Your task to perform on an android device: read, delete, or share a saved page in the chrome app Image 0: 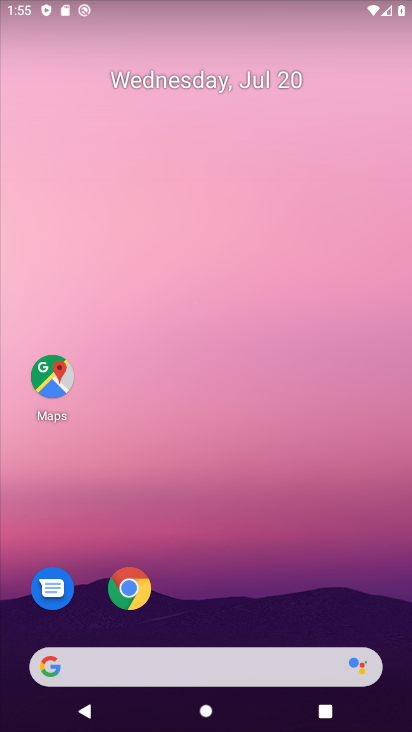
Step 0: click (124, 590)
Your task to perform on an android device: read, delete, or share a saved page in the chrome app Image 1: 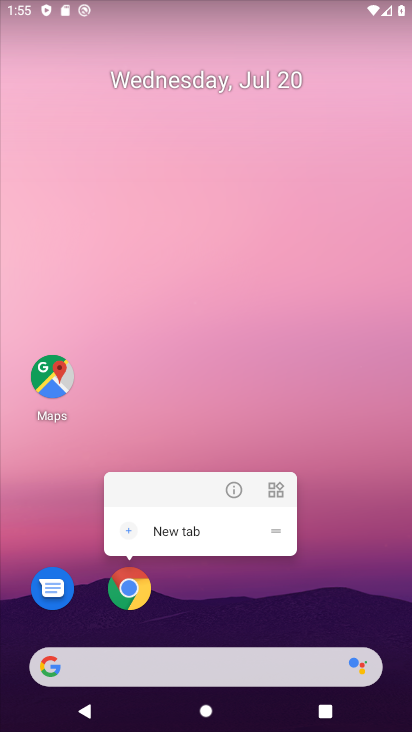
Step 1: click (132, 589)
Your task to perform on an android device: read, delete, or share a saved page in the chrome app Image 2: 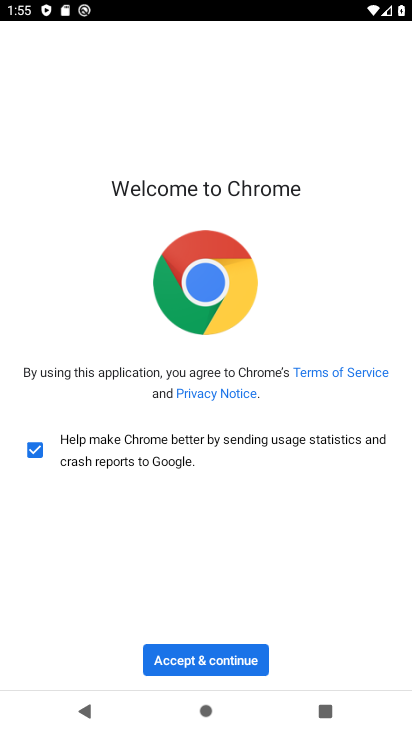
Step 2: click (213, 649)
Your task to perform on an android device: read, delete, or share a saved page in the chrome app Image 3: 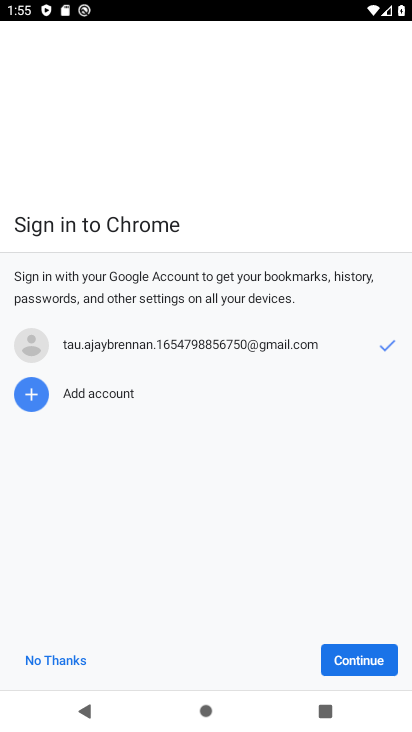
Step 3: click (360, 660)
Your task to perform on an android device: read, delete, or share a saved page in the chrome app Image 4: 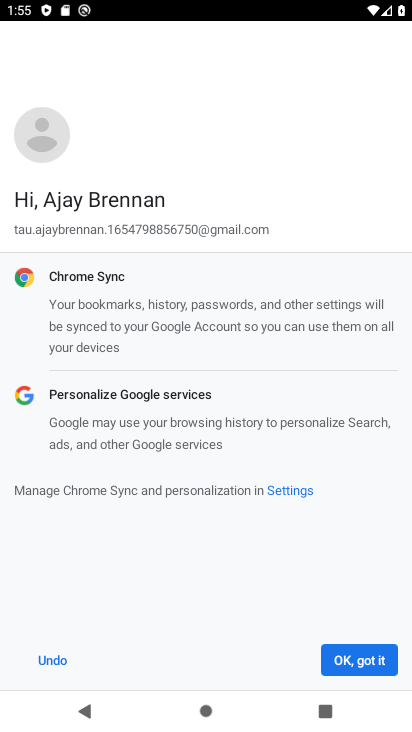
Step 4: click (363, 659)
Your task to perform on an android device: read, delete, or share a saved page in the chrome app Image 5: 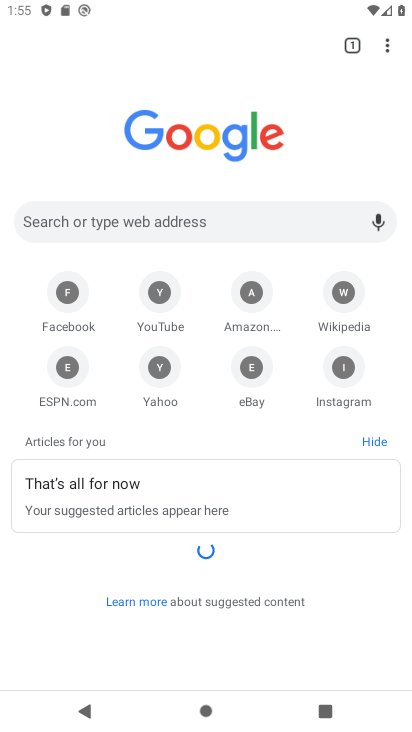
Step 5: drag from (388, 38) to (285, 301)
Your task to perform on an android device: read, delete, or share a saved page in the chrome app Image 6: 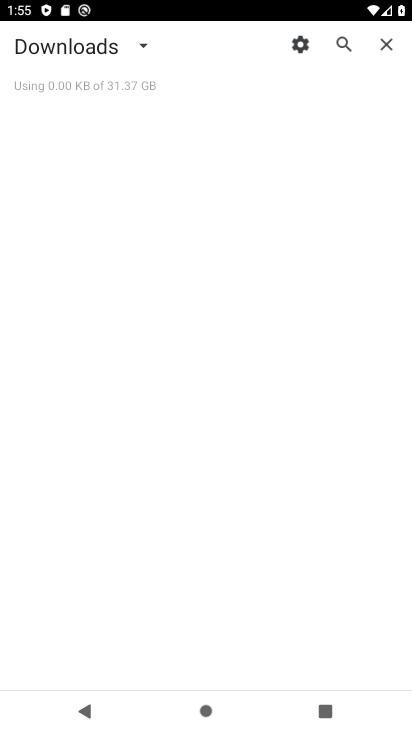
Step 6: click (116, 35)
Your task to perform on an android device: read, delete, or share a saved page in the chrome app Image 7: 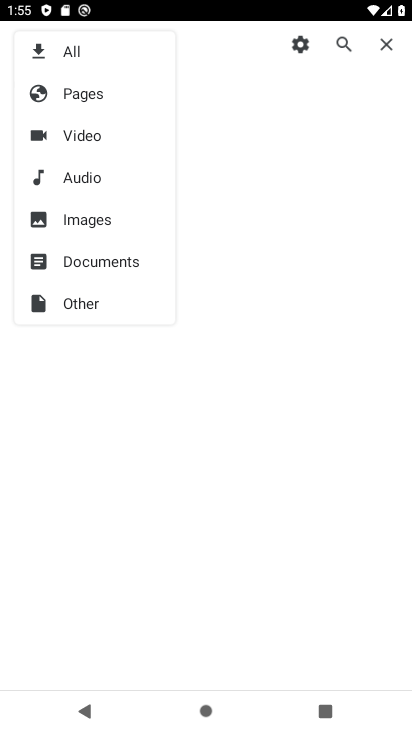
Step 7: click (103, 97)
Your task to perform on an android device: read, delete, or share a saved page in the chrome app Image 8: 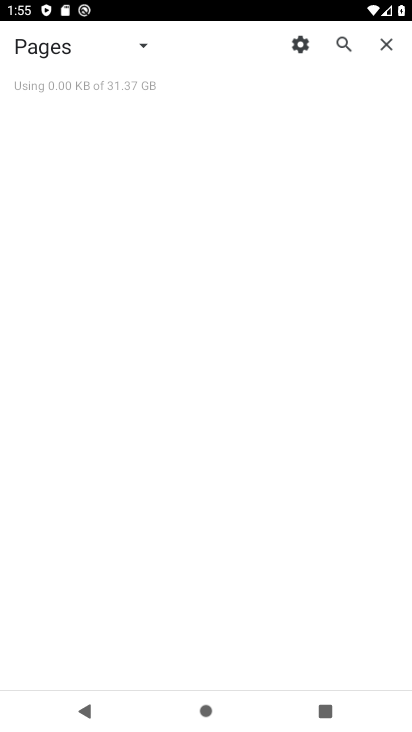
Step 8: task complete